Your task to perform on an android device: turn off picture-in-picture Image 0: 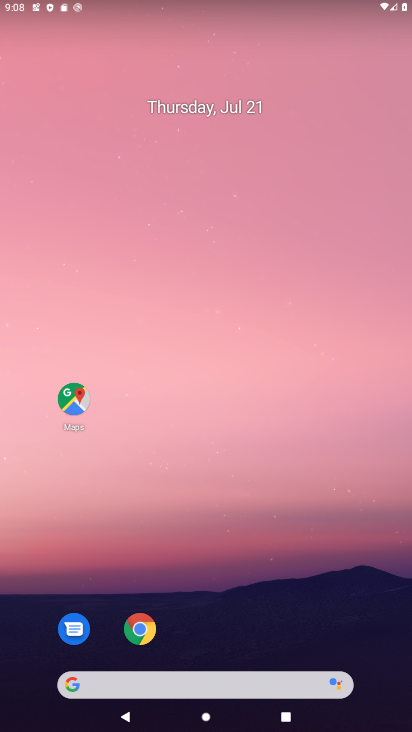
Step 0: click (135, 629)
Your task to perform on an android device: turn off picture-in-picture Image 1: 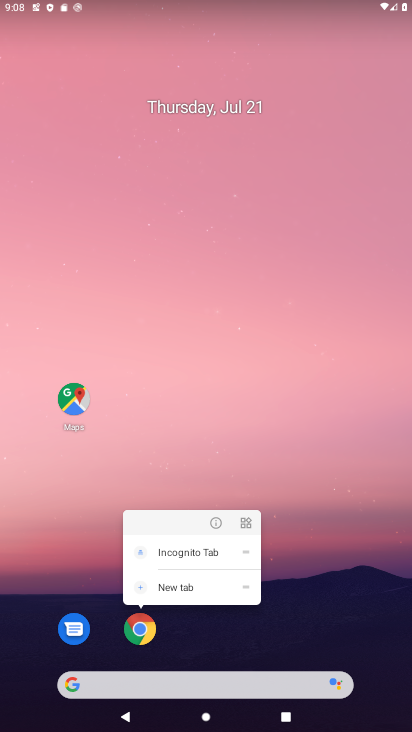
Step 1: click (212, 513)
Your task to perform on an android device: turn off picture-in-picture Image 2: 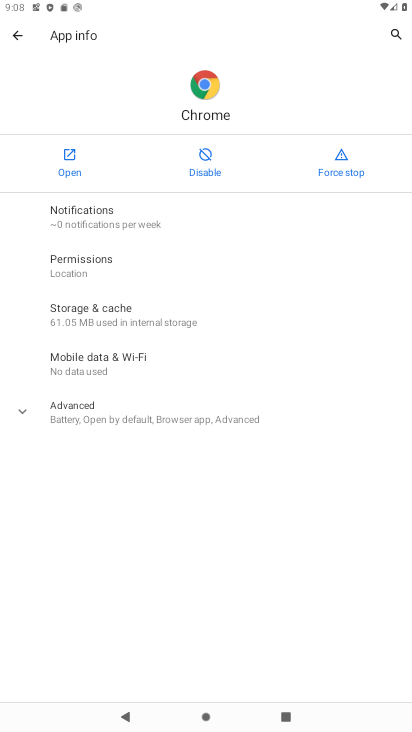
Step 2: click (164, 421)
Your task to perform on an android device: turn off picture-in-picture Image 3: 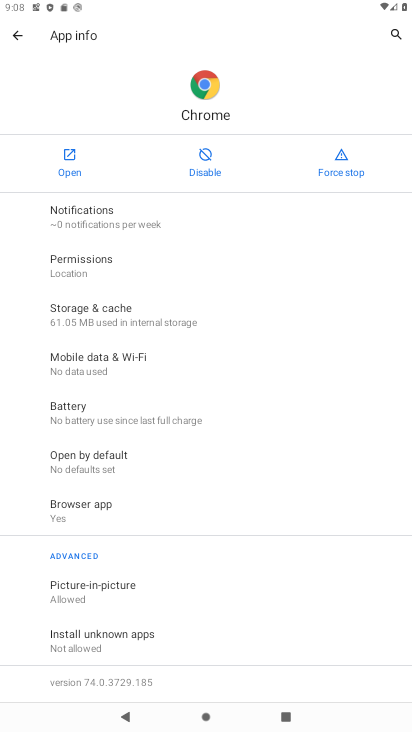
Step 3: click (125, 594)
Your task to perform on an android device: turn off picture-in-picture Image 4: 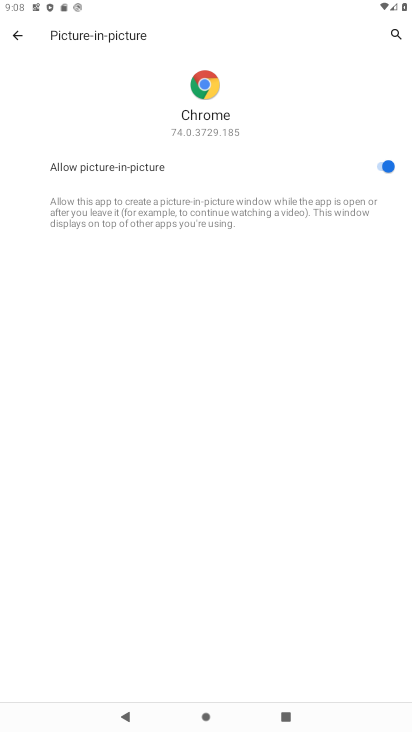
Step 4: click (382, 168)
Your task to perform on an android device: turn off picture-in-picture Image 5: 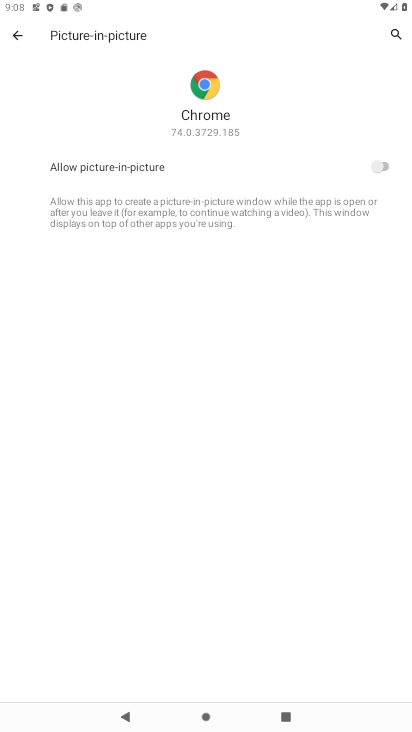
Step 5: task complete